Your task to perform on an android device: toggle javascript in the chrome app Image 0: 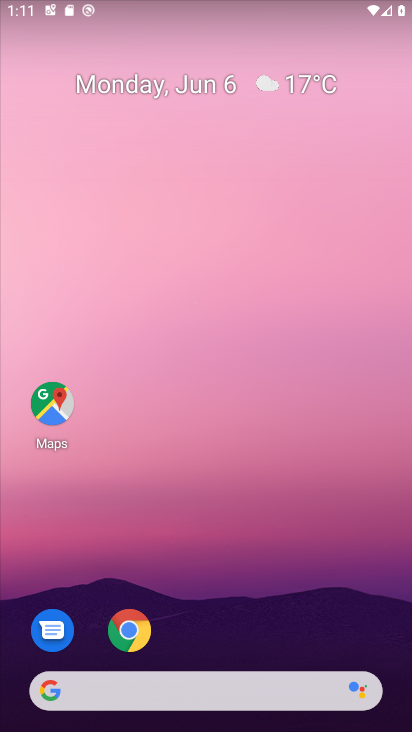
Step 0: click (119, 637)
Your task to perform on an android device: toggle javascript in the chrome app Image 1: 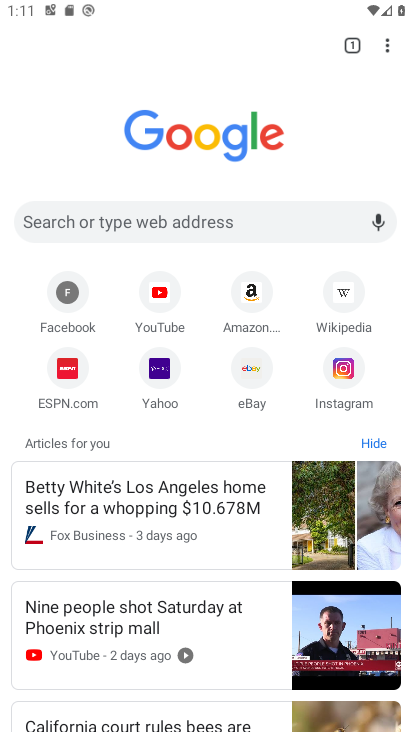
Step 1: click (384, 52)
Your task to perform on an android device: toggle javascript in the chrome app Image 2: 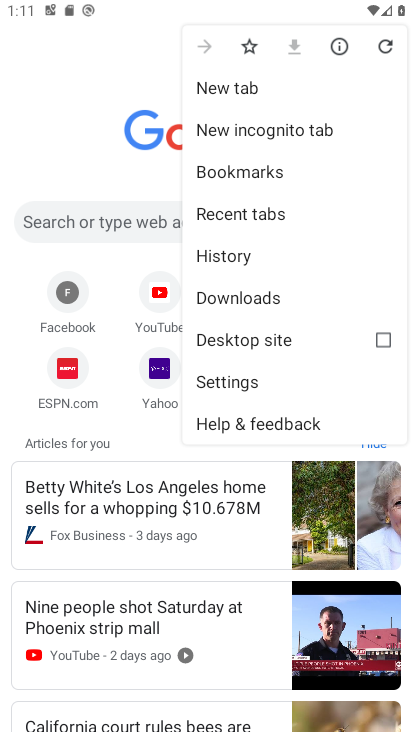
Step 2: click (251, 380)
Your task to perform on an android device: toggle javascript in the chrome app Image 3: 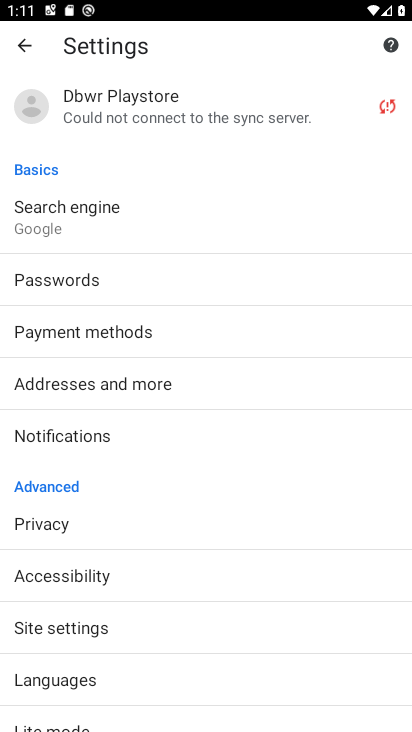
Step 3: click (78, 622)
Your task to perform on an android device: toggle javascript in the chrome app Image 4: 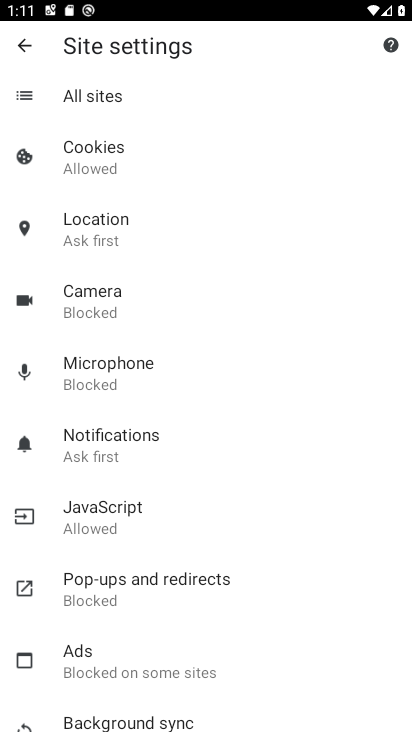
Step 4: click (119, 530)
Your task to perform on an android device: toggle javascript in the chrome app Image 5: 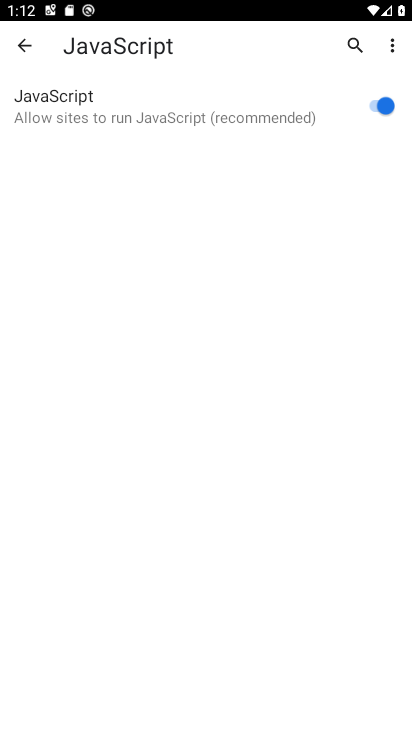
Step 5: click (376, 107)
Your task to perform on an android device: toggle javascript in the chrome app Image 6: 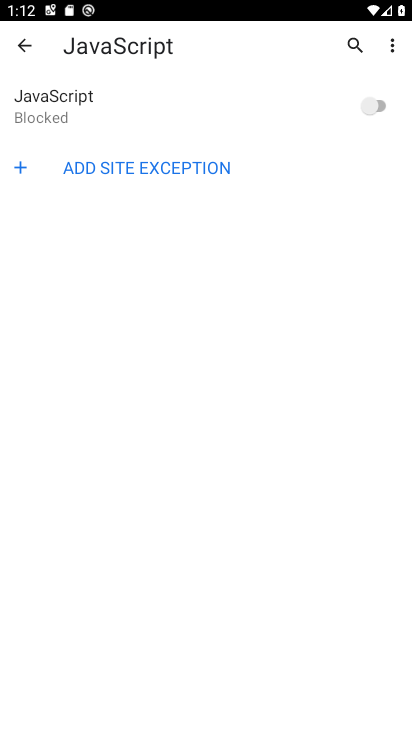
Step 6: task complete